Your task to perform on an android device: Show me productivity apps on the Play Store Image 0: 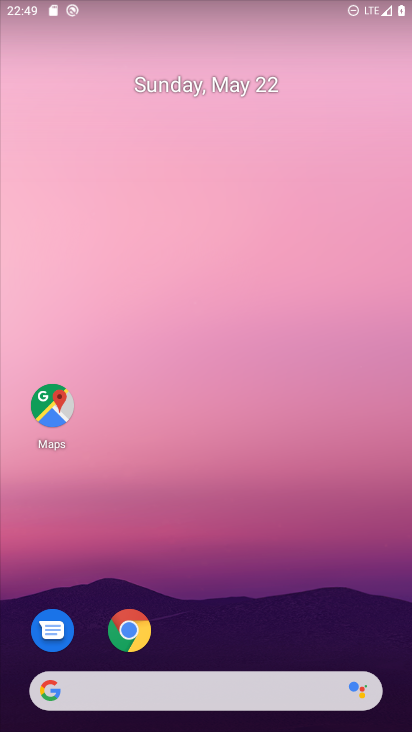
Step 0: press home button
Your task to perform on an android device: Show me productivity apps on the Play Store Image 1: 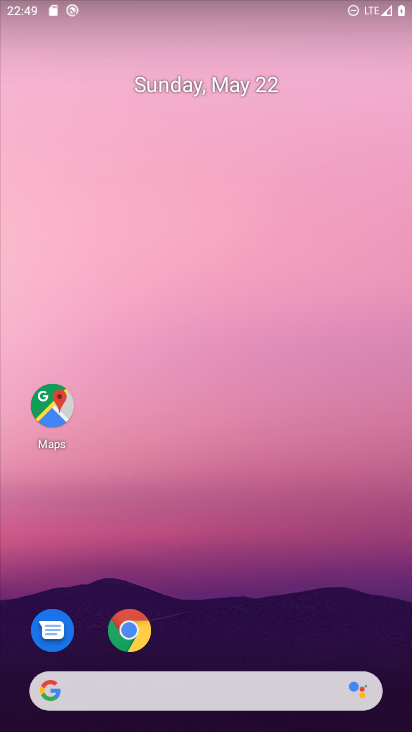
Step 1: drag from (118, 689) to (271, 129)
Your task to perform on an android device: Show me productivity apps on the Play Store Image 2: 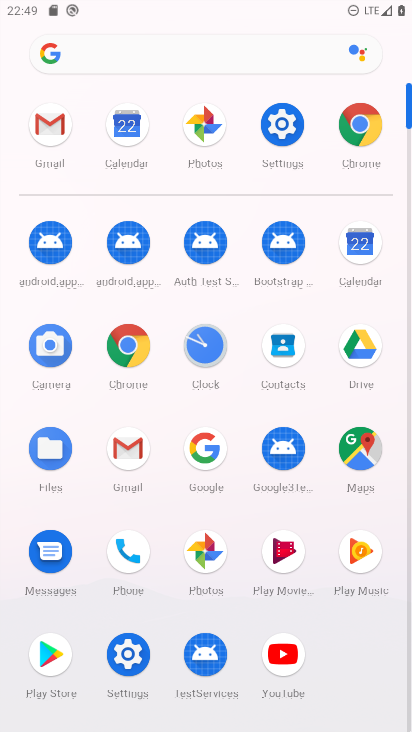
Step 2: click (52, 649)
Your task to perform on an android device: Show me productivity apps on the Play Store Image 3: 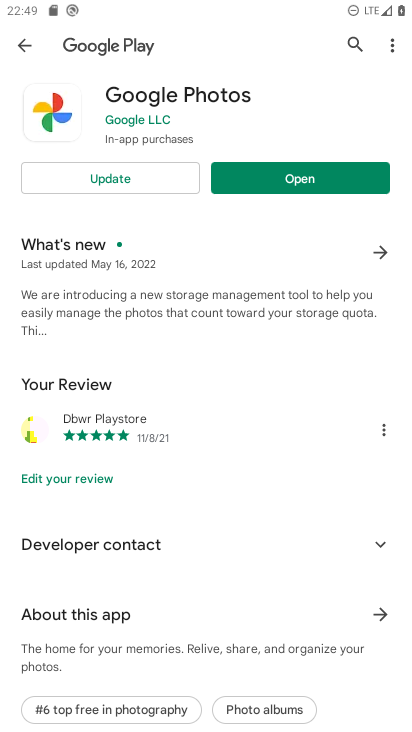
Step 3: click (15, 39)
Your task to perform on an android device: Show me productivity apps on the Play Store Image 4: 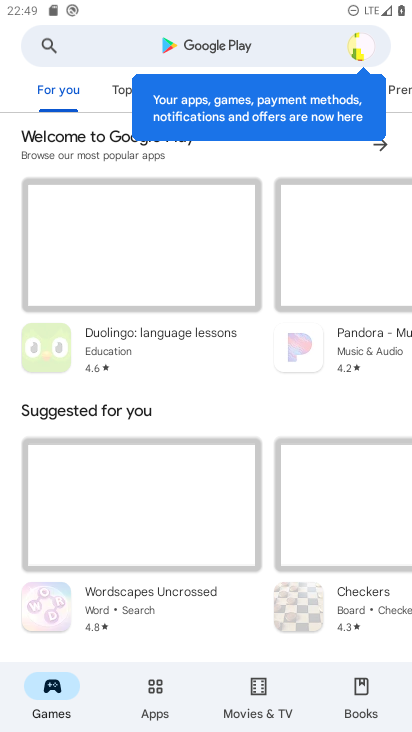
Step 4: click (153, 697)
Your task to perform on an android device: Show me productivity apps on the Play Store Image 5: 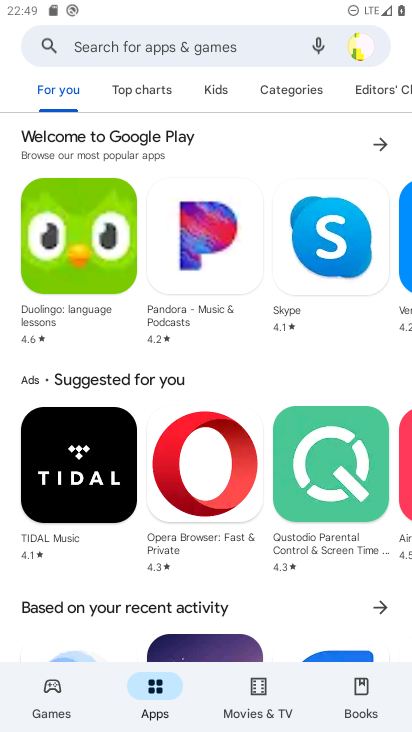
Step 5: drag from (333, 91) to (147, 106)
Your task to perform on an android device: Show me productivity apps on the Play Store Image 6: 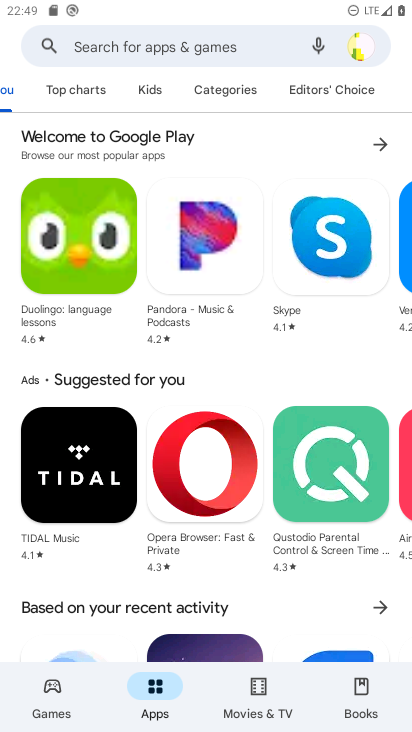
Step 6: drag from (369, 86) to (120, 83)
Your task to perform on an android device: Show me productivity apps on the Play Store Image 7: 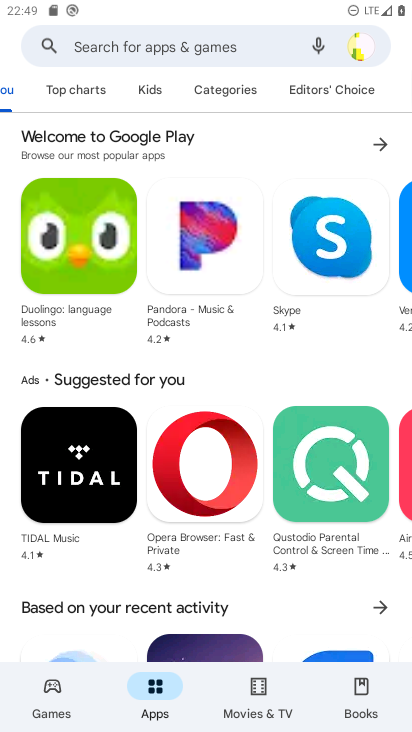
Step 7: click (223, 90)
Your task to perform on an android device: Show me productivity apps on the Play Store Image 8: 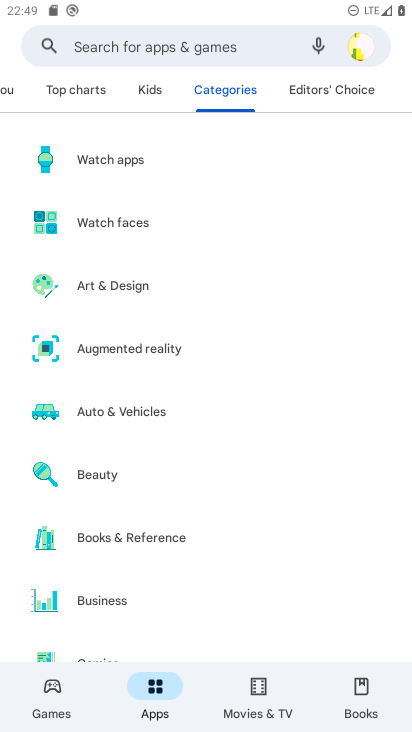
Step 8: drag from (243, 609) to (275, 86)
Your task to perform on an android device: Show me productivity apps on the Play Store Image 9: 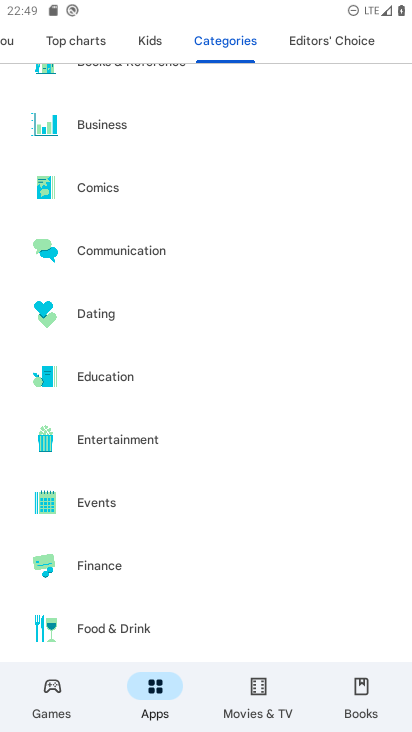
Step 9: drag from (239, 590) to (280, 180)
Your task to perform on an android device: Show me productivity apps on the Play Store Image 10: 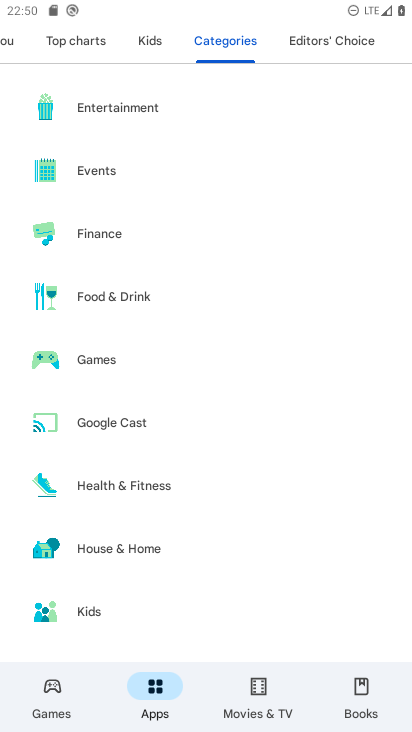
Step 10: drag from (239, 568) to (335, 165)
Your task to perform on an android device: Show me productivity apps on the Play Store Image 11: 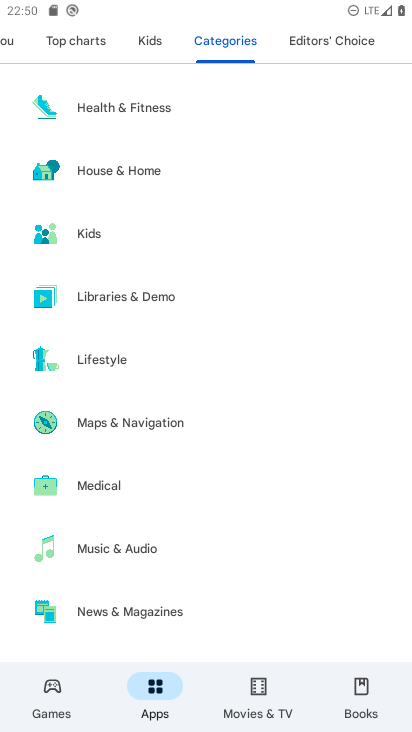
Step 11: drag from (271, 559) to (347, 155)
Your task to perform on an android device: Show me productivity apps on the Play Store Image 12: 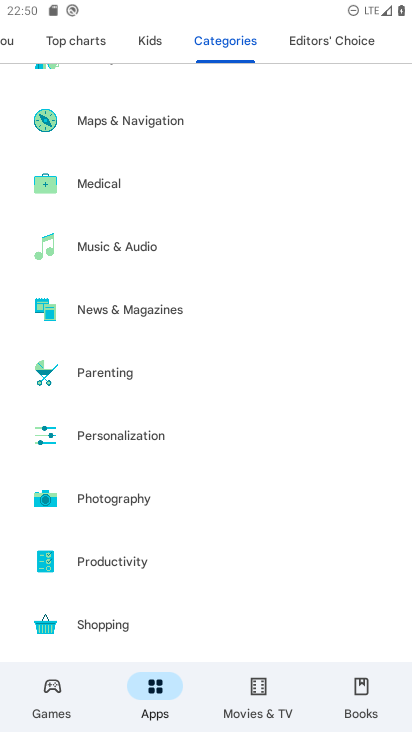
Step 12: drag from (223, 586) to (289, 228)
Your task to perform on an android device: Show me productivity apps on the Play Store Image 13: 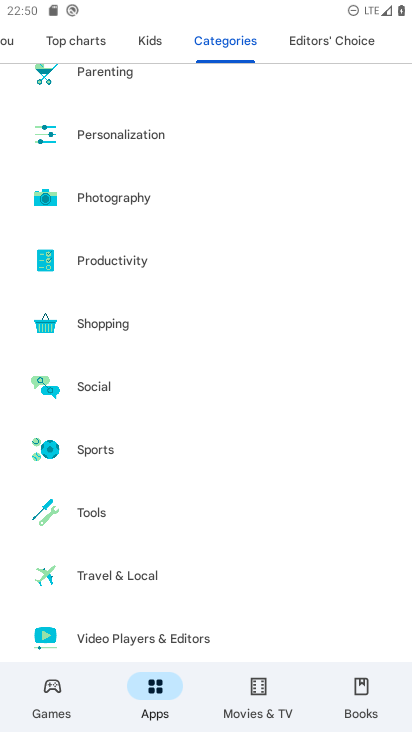
Step 13: click (132, 260)
Your task to perform on an android device: Show me productivity apps on the Play Store Image 14: 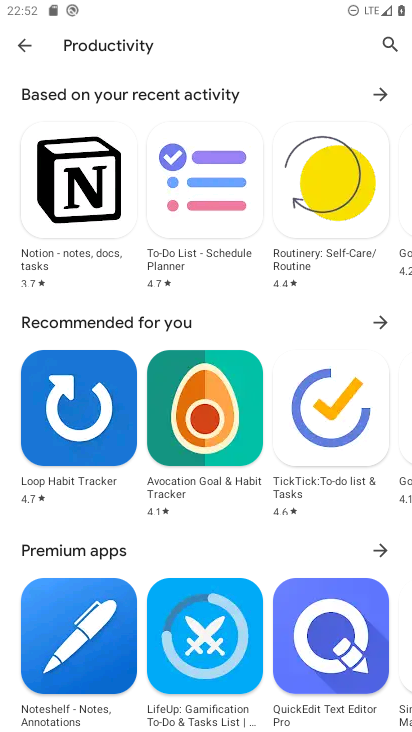
Step 14: task complete